Your task to perform on an android device: Open location settings Image 0: 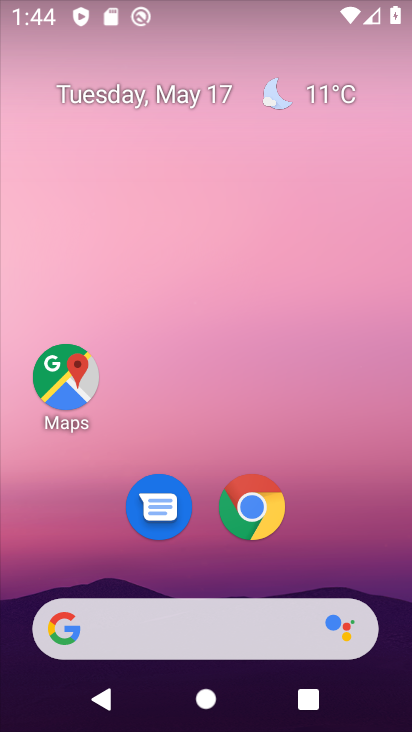
Step 0: drag from (207, 578) to (246, 126)
Your task to perform on an android device: Open location settings Image 1: 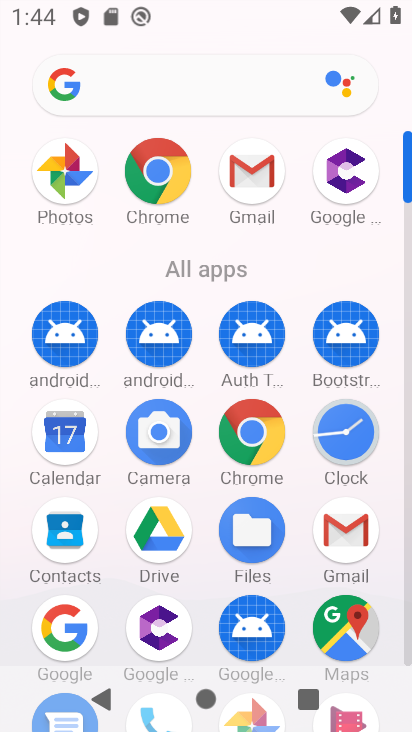
Step 1: drag from (107, 650) to (211, 59)
Your task to perform on an android device: Open location settings Image 2: 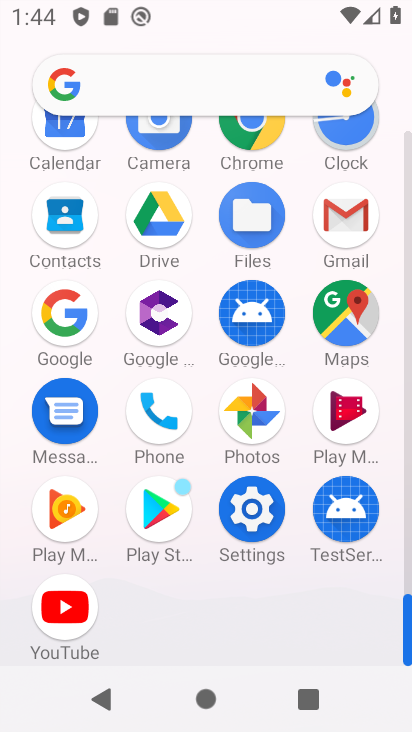
Step 2: click (238, 505)
Your task to perform on an android device: Open location settings Image 3: 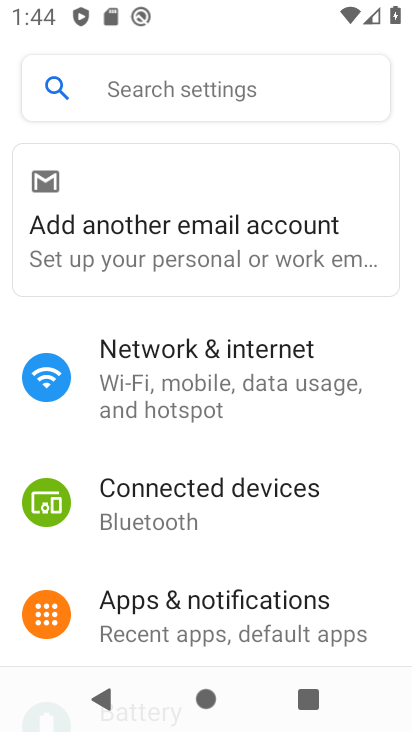
Step 3: drag from (108, 511) to (174, 51)
Your task to perform on an android device: Open location settings Image 4: 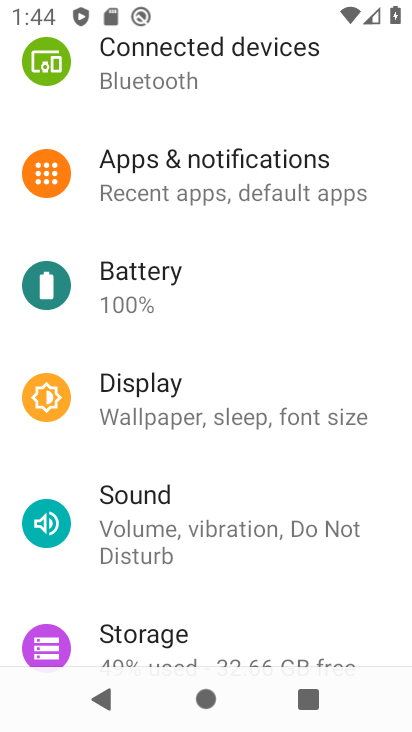
Step 4: drag from (108, 580) to (246, 88)
Your task to perform on an android device: Open location settings Image 5: 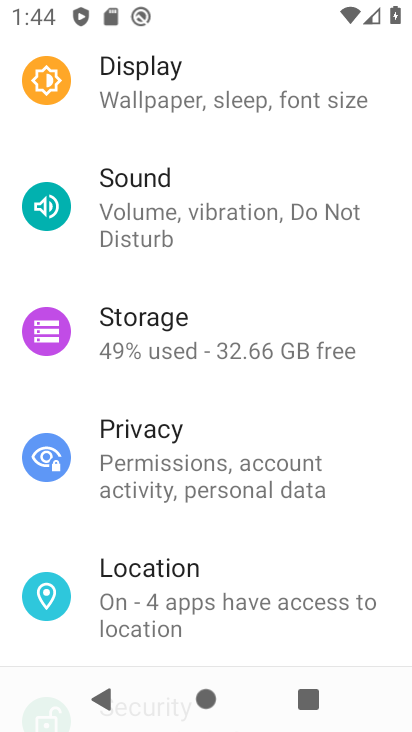
Step 5: click (135, 596)
Your task to perform on an android device: Open location settings Image 6: 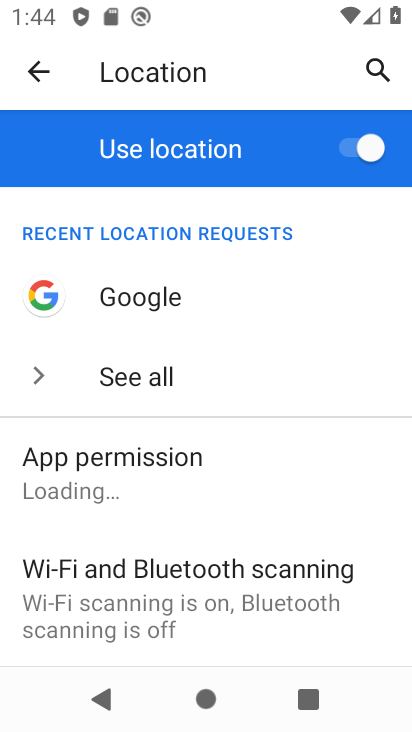
Step 6: task complete